Your task to perform on an android device: see sites visited before in the chrome app Image 0: 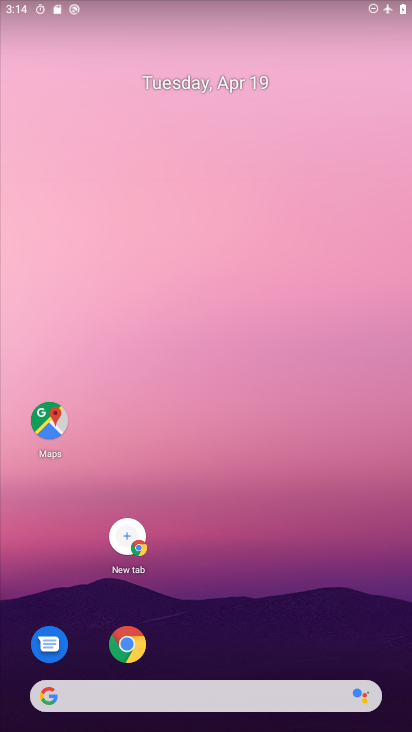
Step 0: click (127, 637)
Your task to perform on an android device: see sites visited before in the chrome app Image 1: 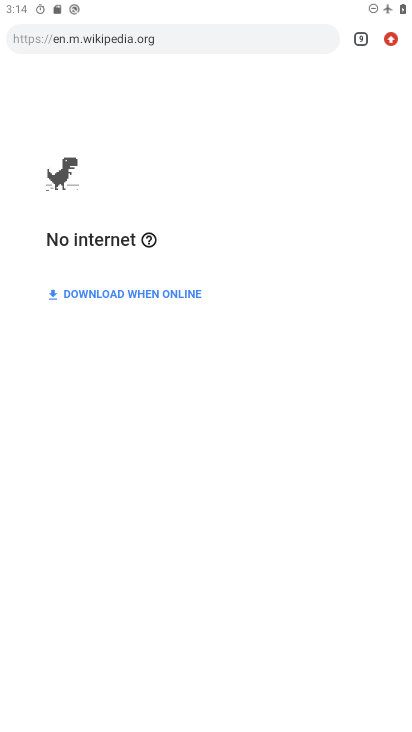
Step 1: click (390, 35)
Your task to perform on an android device: see sites visited before in the chrome app Image 2: 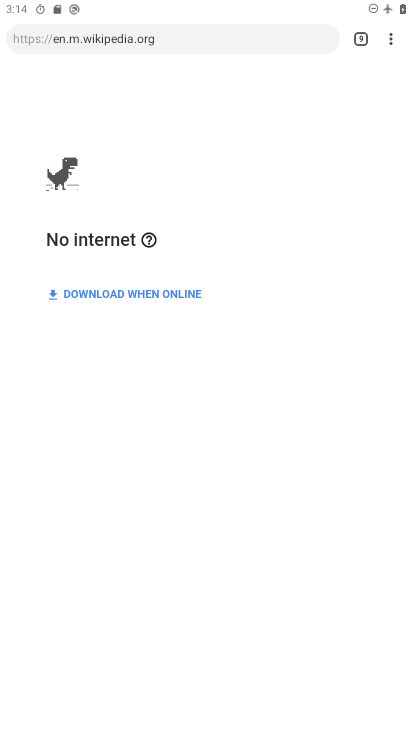
Step 2: click (391, 39)
Your task to perform on an android device: see sites visited before in the chrome app Image 3: 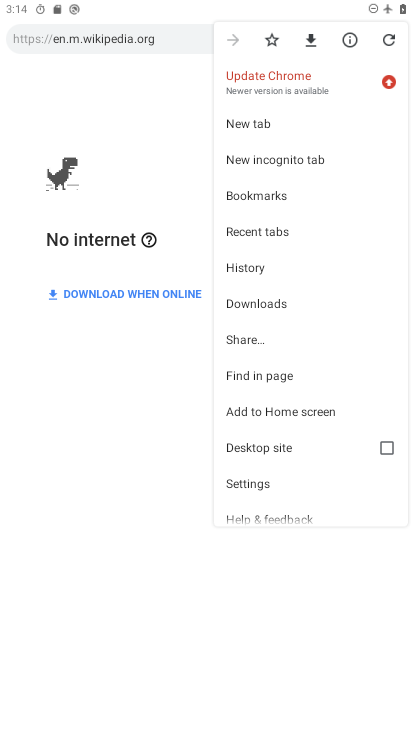
Step 3: click (241, 266)
Your task to perform on an android device: see sites visited before in the chrome app Image 4: 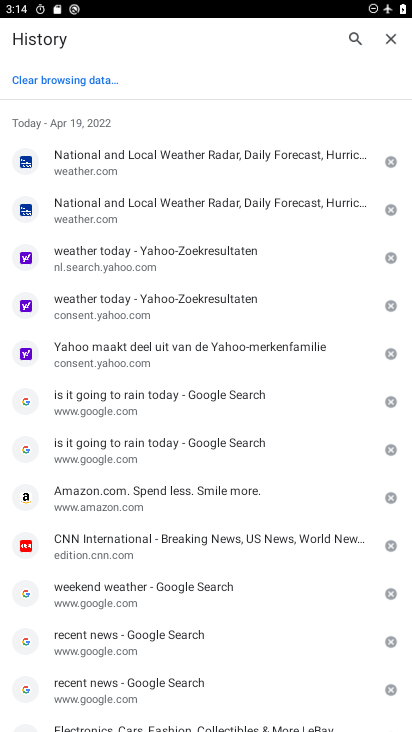
Step 4: task complete